Your task to perform on an android device: Go to Android settings Image 0: 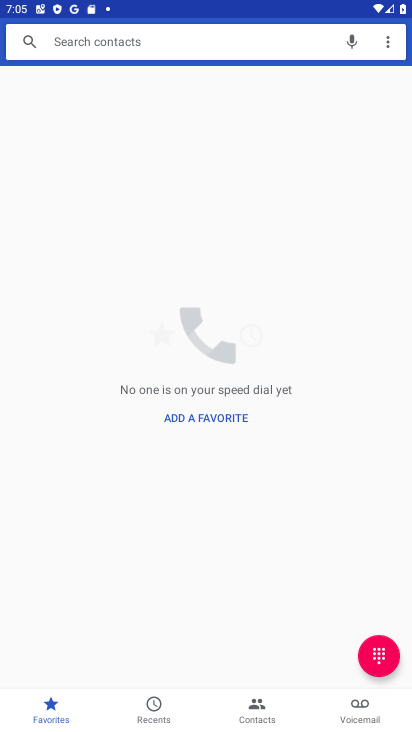
Step 0: press home button
Your task to perform on an android device: Go to Android settings Image 1: 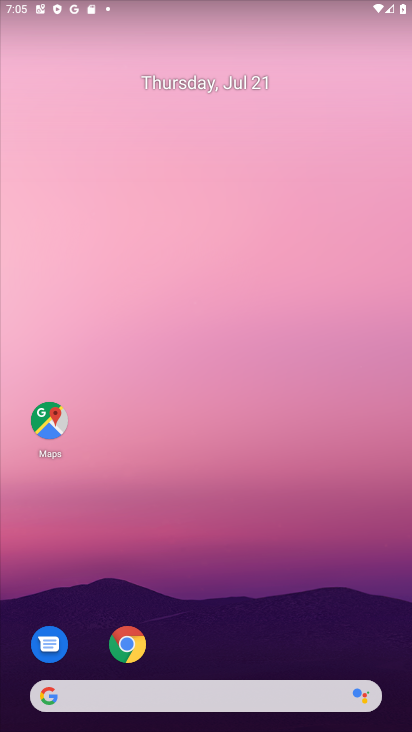
Step 1: drag from (243, 569) to (216, 265)
Your task to perform on an android device: Go to Android settings Image 2: 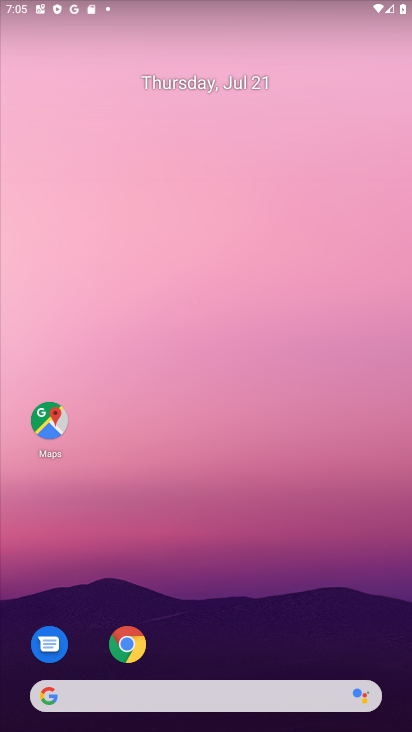
Step 2: drag from (249, 551) to (223, 229)
Your task to perform on an android device: Go to Android settings Image 3: 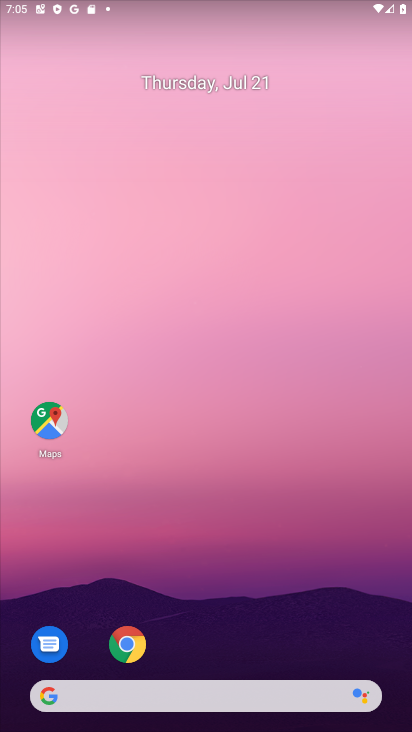
Step 3: drag from (268, 639) to (245, 265)
Your task to perform on an android device: Go to Android settings Image 4: 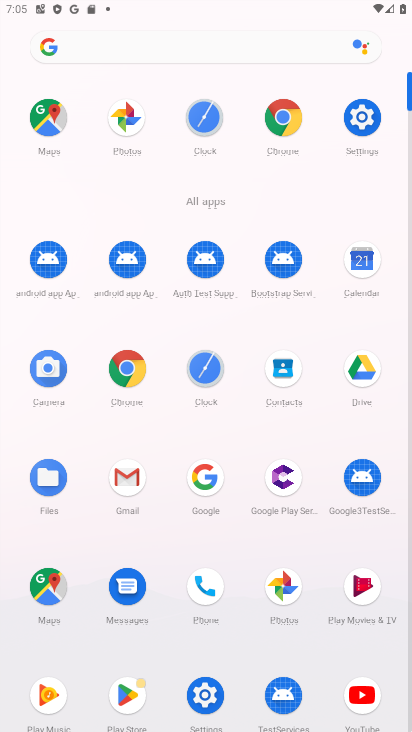
Step 4: click (207, 688)
Your task to perform on an android device: Go to Android settings Image 5: 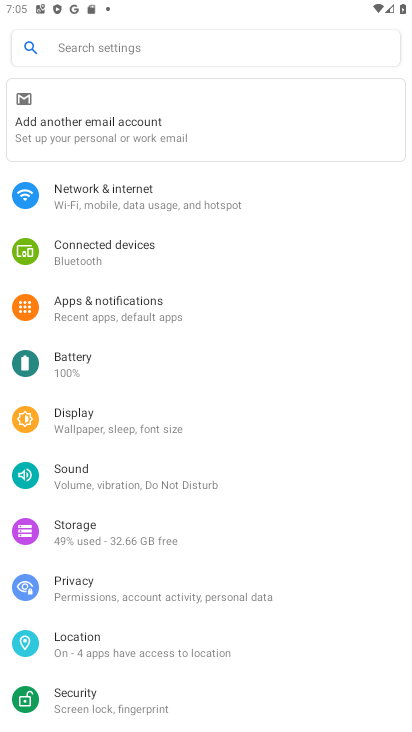
Step 5: task complete